Your task to perform on an android device: snooze an email in the gmail app Image 0: 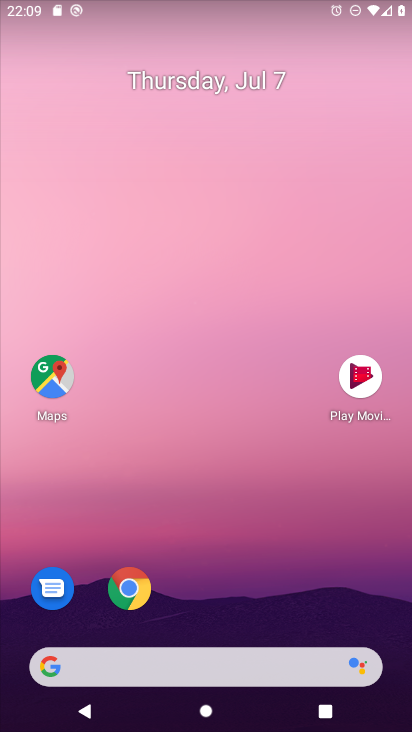
Step 0: drag from (215, 628) to (157, 150)
Your task to perform on an android device: snooze an email in the gmail app Image 1: 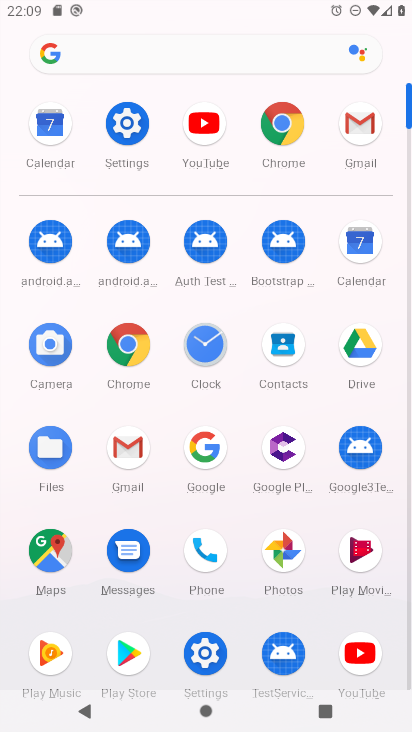
Step 1: click (130, 443)
Your task to perform on an android device: snooze an email in the gmail app Image 2: 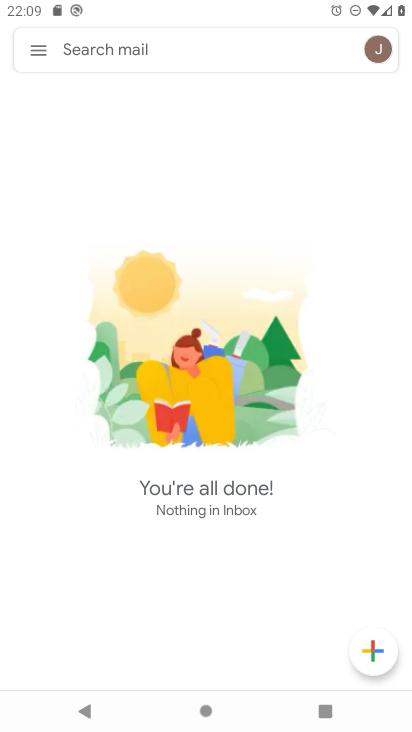
Step 2: click (31, 47)
Your task to perform on an android device: snooze an email in the gmail app Image 3: 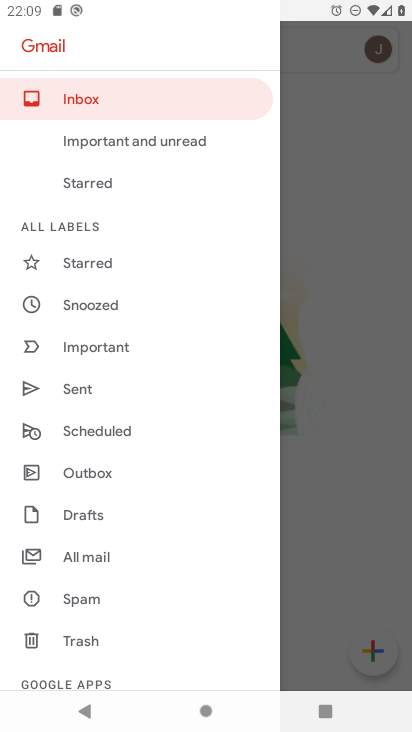
Step 3: click (106, 306)
Your task to perform on an android device: snooze an email in the gmail app Image 4: 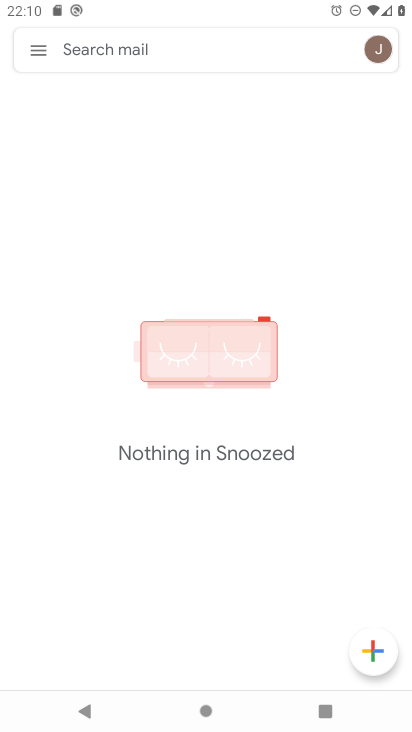
Step 4: task complete